Your task to perform on an android device: turn on the 24-hour format for clock Image 0: 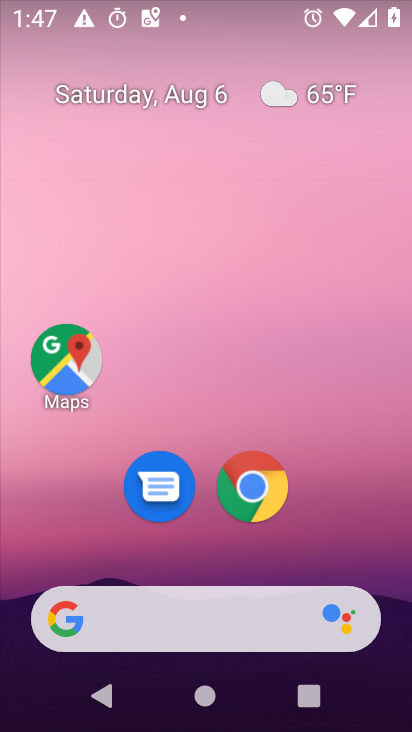
Step 0: drag from (226, 496) to (289, 22)
Your task to perform on an android device: turn on the 24-hour format for clock Image 1: 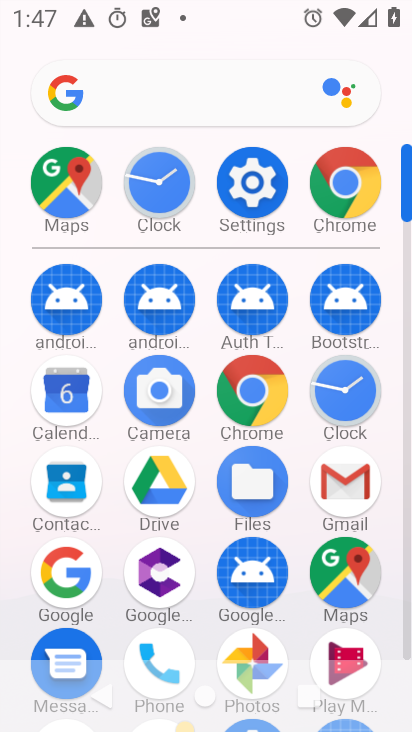
Step 1: click (158, 163)
Your task to perform on an android device: turn on the 24-hour format for clock Image 2: 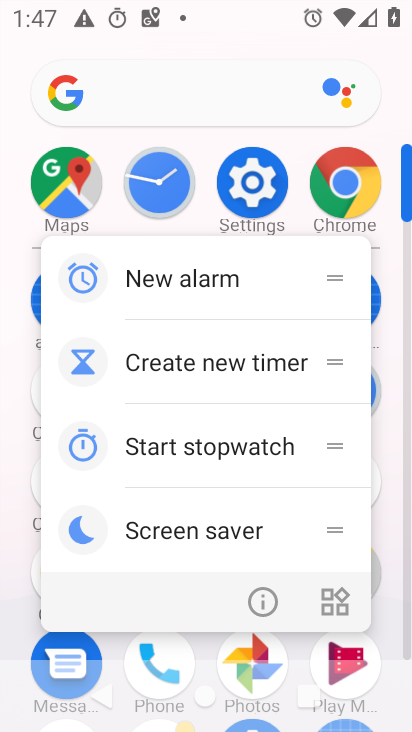
Step 2: click (162, 169)
Your task to perform on an android device: turn on the 24-hour format for clock Image 3: 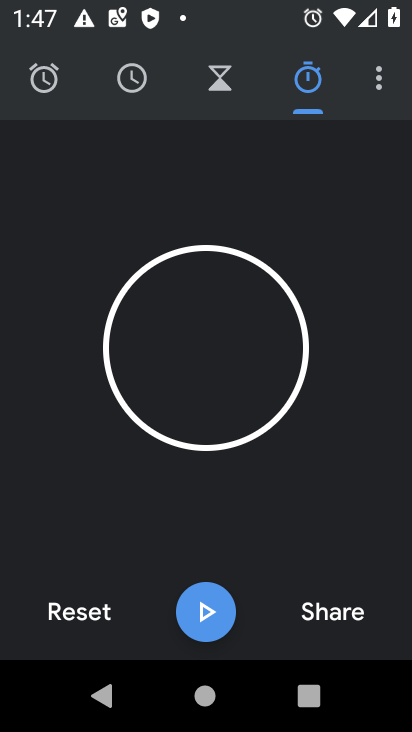
Step 3: click (371, 93)
Your task to perform on an android device: turn on the 24-hour format for clock Image 4: 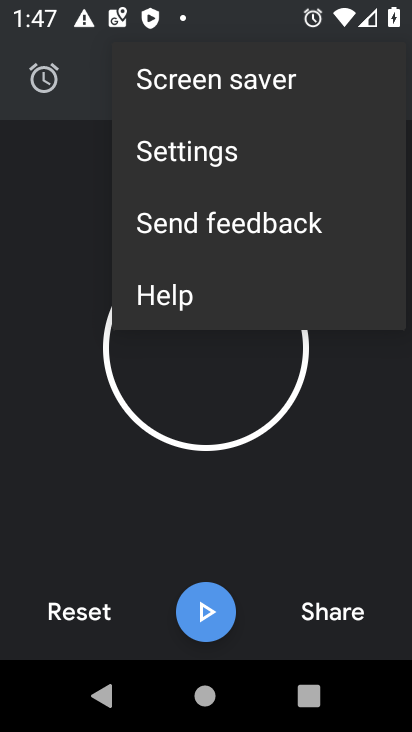
Step 4: click (225, 147)
Your task to perform on an android device: turn on the 24-hour format for clock Image 5: 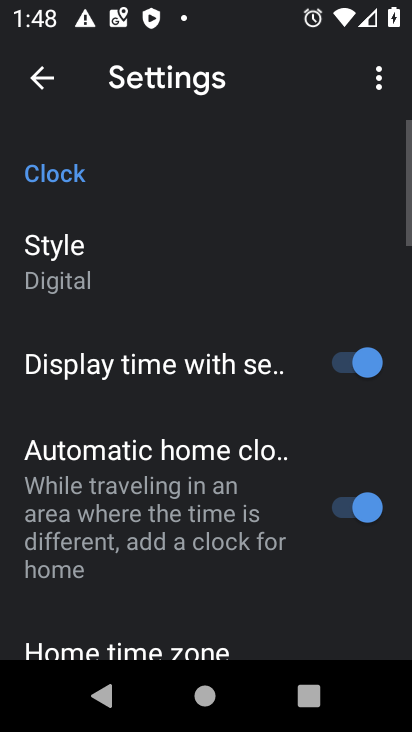
Step 5: drag from (161, 600) to (225, 144)
Your task to perform on an android device: turn on the 24-hour format for clock Image 6: 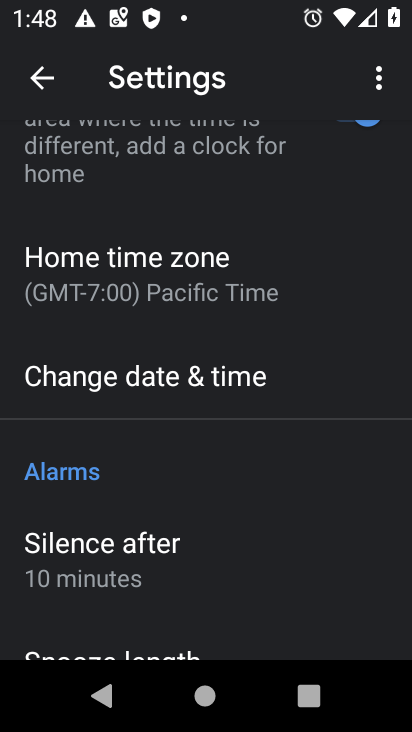
Step 6: drag from (169, 618) to (276, 90)
Your task to perform on an android device: turn on the 24-hour format for clock Image 7: 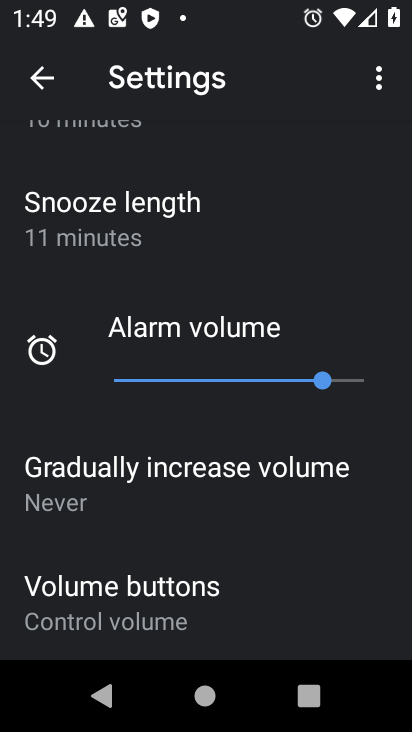
Step 7: drag from (191, 590) to (311, 122)
Your task to perform on an android device: turn on the 24-hour format for clock Image 8: 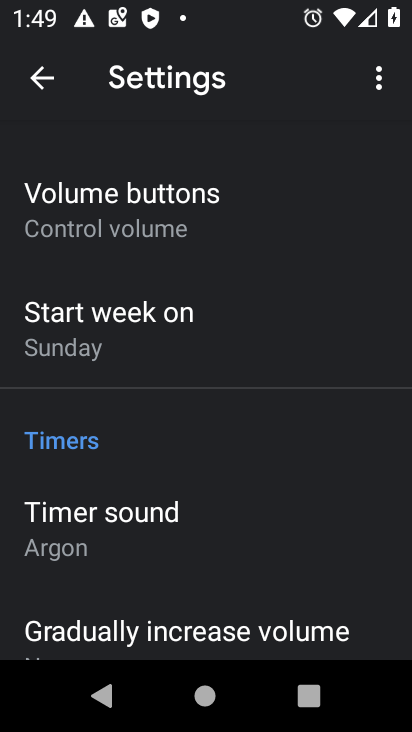
Step 8: drag from (171, 593) to (292, 84)
Your task to perform on an android device: turn on the 24-hour format for clock Image 9: 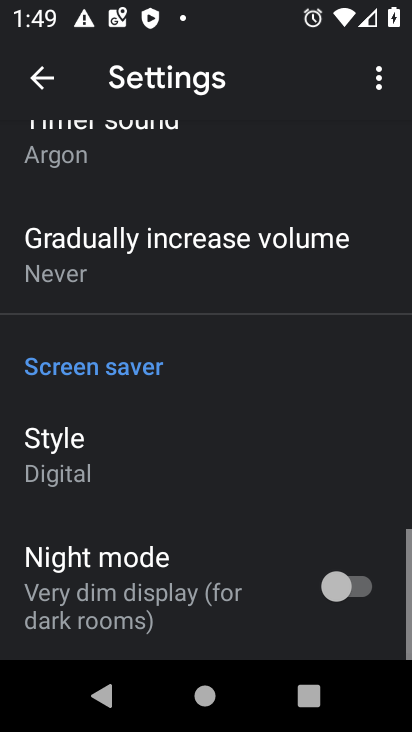
Step 9: drag from (243, 388) to (202, 670)
Your task to perform on an android device: turn on the 24-hour format for clock Image 10: 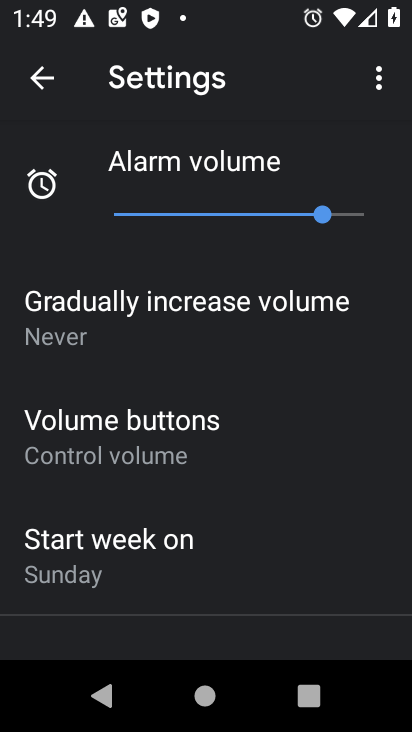
Step 10: drag from (239, 288) to (239, 716)
Your task to perform on an android device: turn on the 24-hour format for clock Image 11: 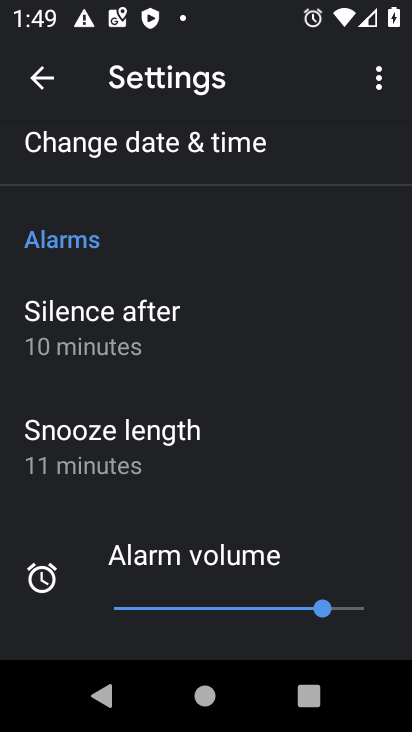
Step 11: click (118, 147)
Your task to perform on an android device: turn on the 24-hour format for clock Image 12: 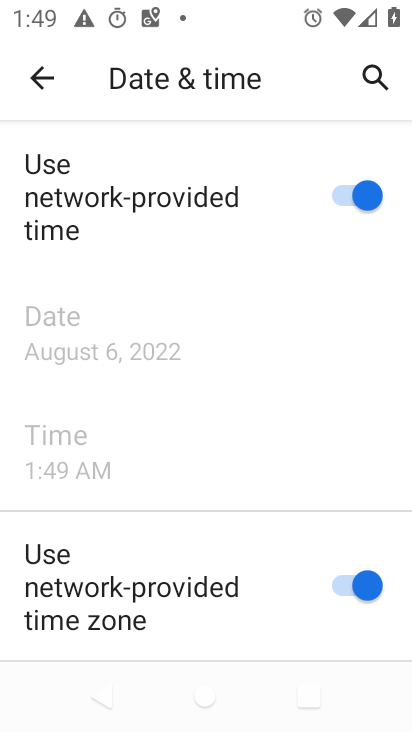
Step 12: drag from (135, 612) to (217, 183)
Your task to perform on an android device: turn on the 24-hour format for clock Image 13: 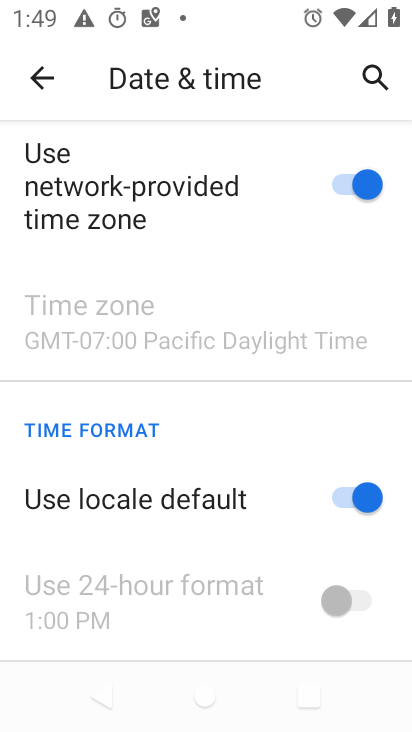
Step 13: click (361, 497)
Your task to perform on an android device: turn on the 24-hour format for clock Image 14: 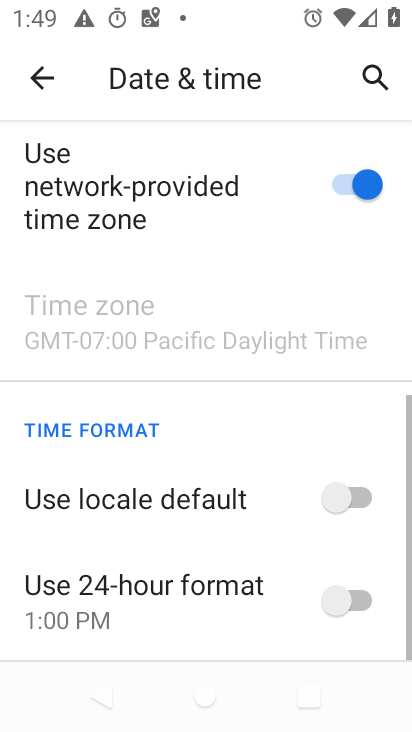
Step 14: click (347, 602)
Your task to perform on an android device: turn on the 24-hour format for clock Image 15: 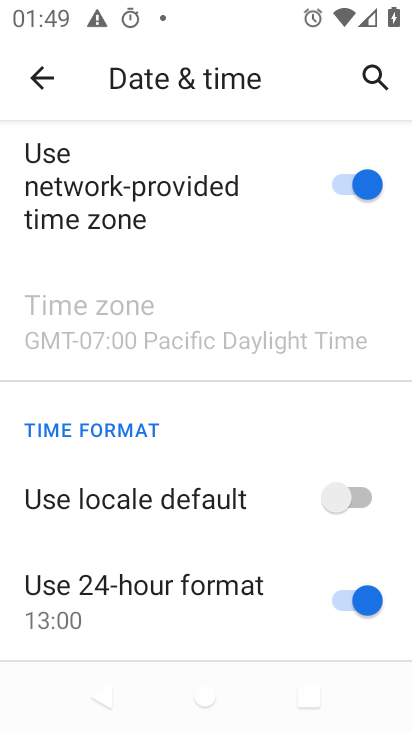
Step 15: task complete